Your task to perform on an android device: Open wifi settings Image 0: 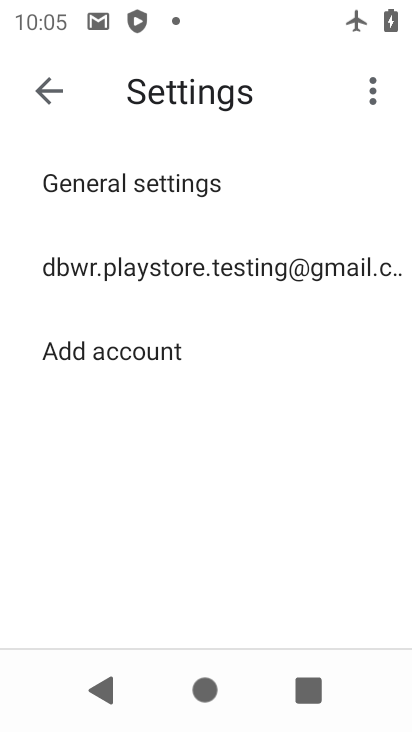
Step 0: press home button
Your task to perform on an android device: Open wifi settings Image 1: 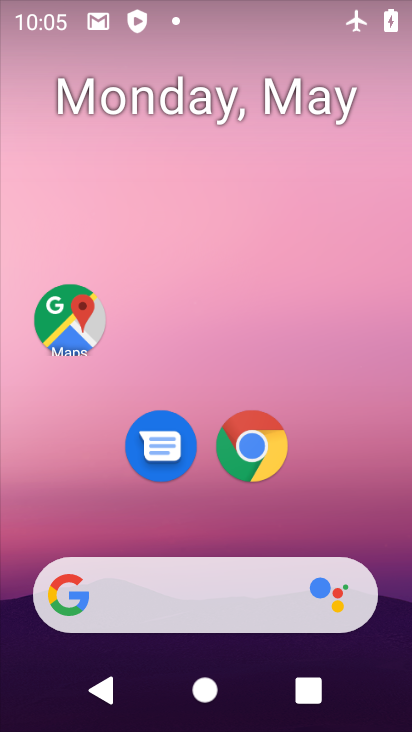
Step 1: drag from (372, 3) to (278, 703)
Your task to perform on an android device: Open wifi settings Image 2: 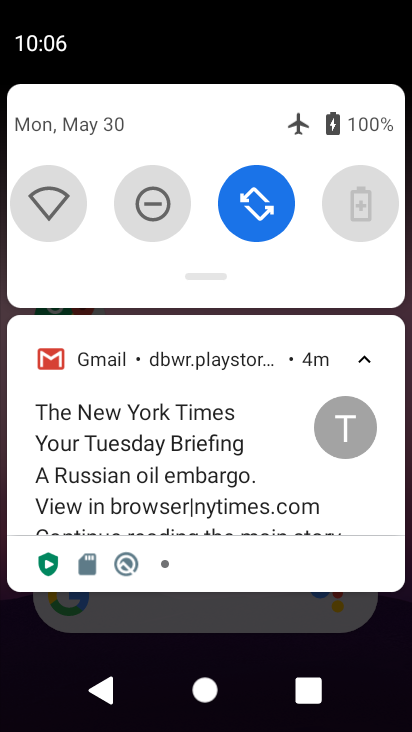
Step 2: drag from (207, 271) to (81, 698)
Your task to perform on an android device: Open wifi settings Image 3: 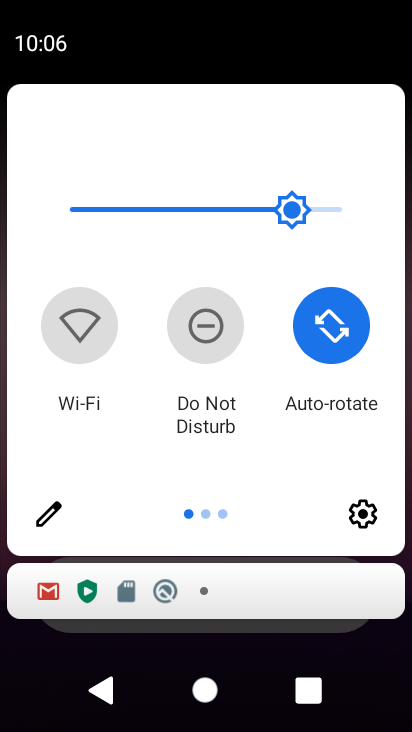
Step 3: drag from (393, 282) to (26, 296)
Your task to perform on an android device: Open wifi settings Image 4: 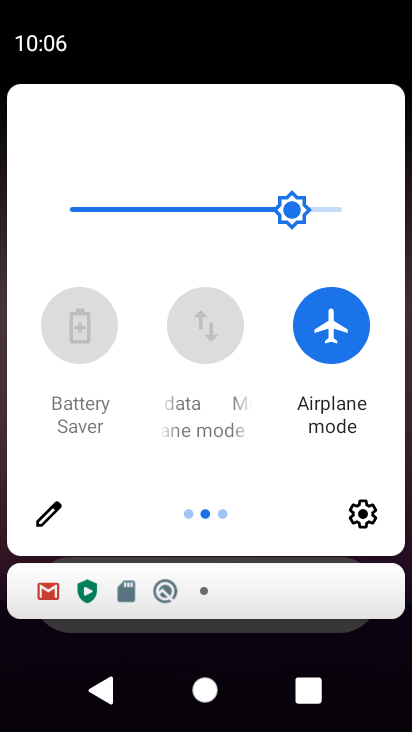
Step 4: drag from (103, 330) to (408, 320)
Your task to perform on an android device: Open wifi settings Image 5: 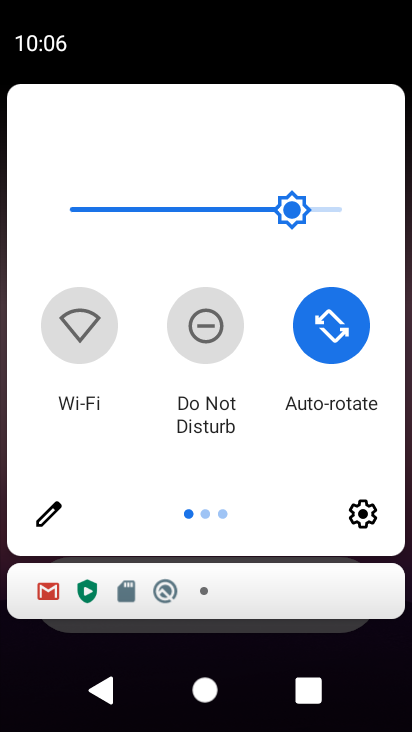
Step 5: click (68, 309)
Your task to perform on an android device: Open wifi settings Image 6: 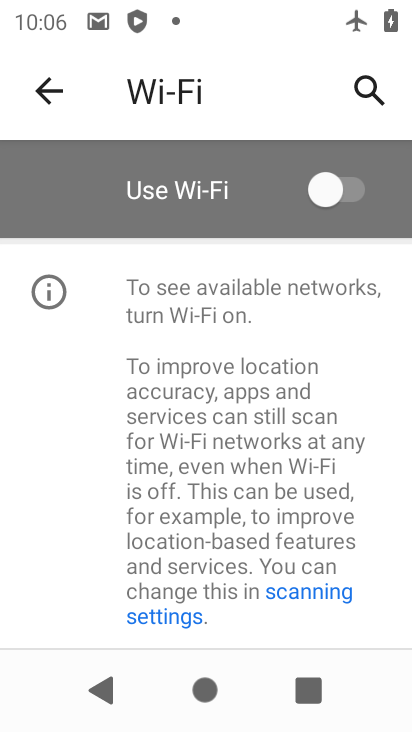
Step 6: task complete